Your task to perform on an android device: Add razer nari to the cart on walmart.com Image 0: 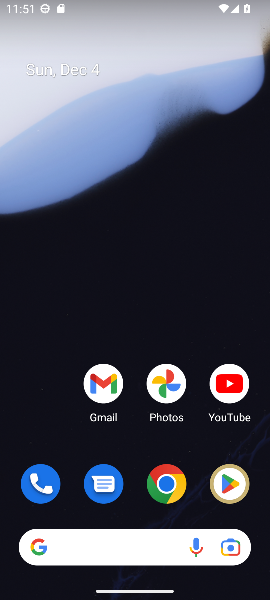
Step 0: click (169, 492)
Your task to perform on an android device: Add razer nari to the cart on walmart.com Image 1: 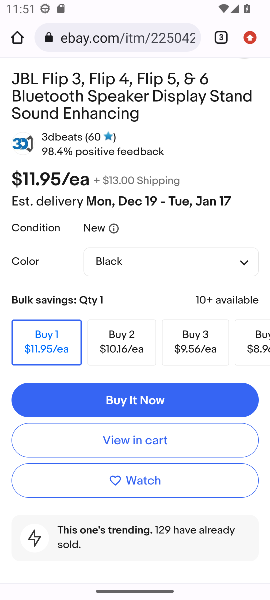
Step 1: click (100, 40)
Your task to perform on an android device: Add razer nari to the cart on walmart.com Image 2: 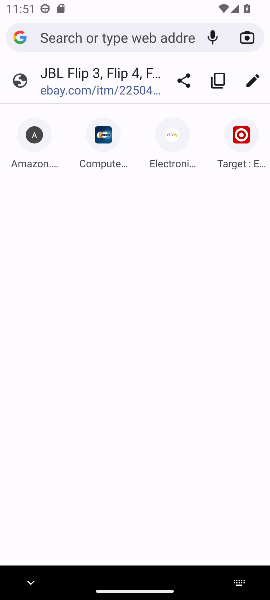
Step 2: type "walmart.com"
Your task to perform on an android device: Add razer nari to the cart on walmart.com Image 3: 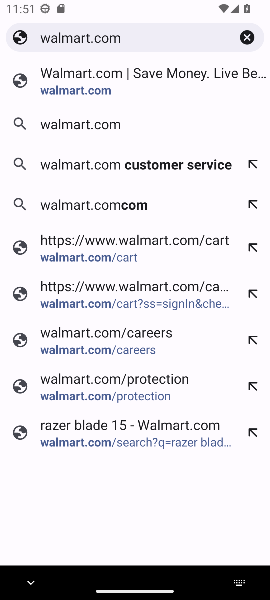
Step 3: click (84, 77)
Your task to perform on an android device: Add razer nari to the cart on walmart.com Image 4: 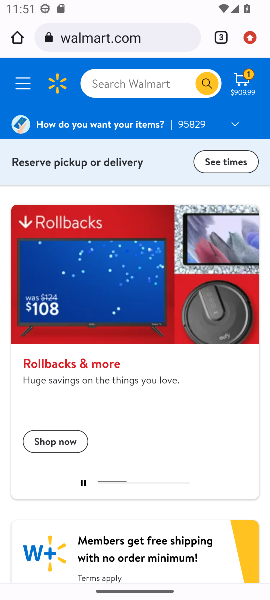
Step 4: click (109, 89)
Your task to perform on an android device: Add razer nari to the cart on walmart.com Image 5: 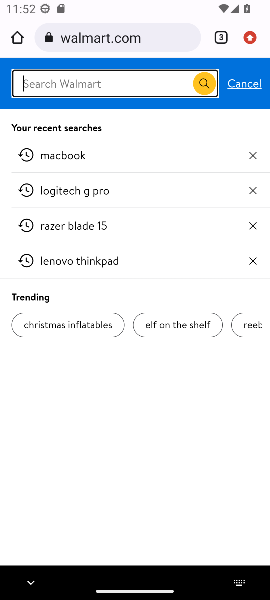
Step 5: type "razer nari "
Your task to perform on an android device: Add razer nari to the cart on walmart.com Image 6: 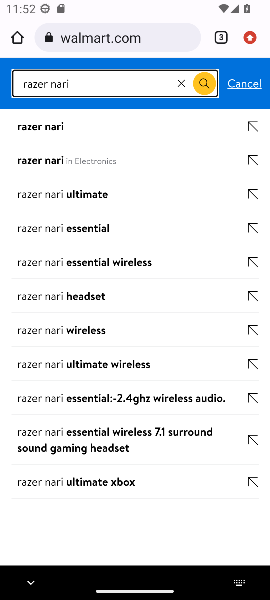
Step 6: click (54, 127)
Your task to perform on an android device: Add razer nari to the cart on walmart.com Image 7: 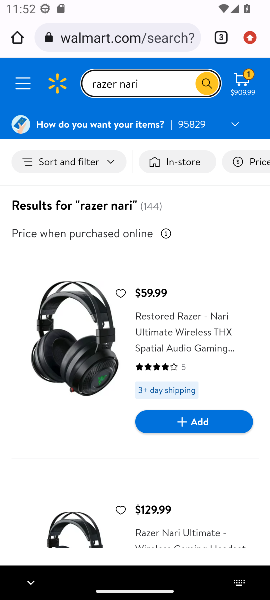
Step 7: drag from (139, 466) to (122, 323)
Your task to perform on an android device: Add razer nari to the cart on walmart.com Image 8: 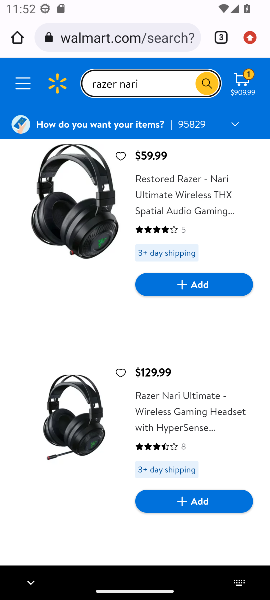
Step 8: click (187, 278)
Your task to perform on an android device: Add razer nari to the cart on walmart.com Image 9: 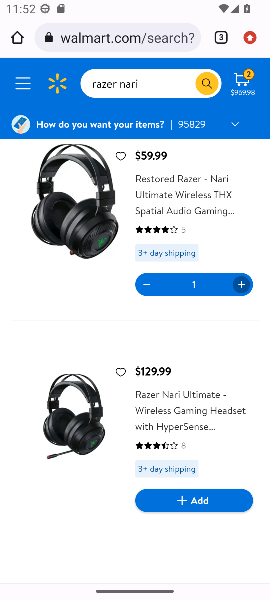
Step 9: task complete